Your task to perform on an android device: toggle airplane mode Image 0: 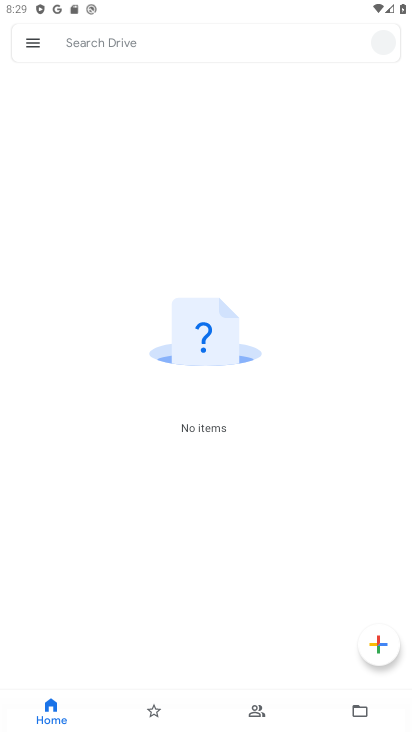
Step 0: drag from (261, 6) to (383, 626)
Your task to perform on an android device: toggle airplane mode Image 1: 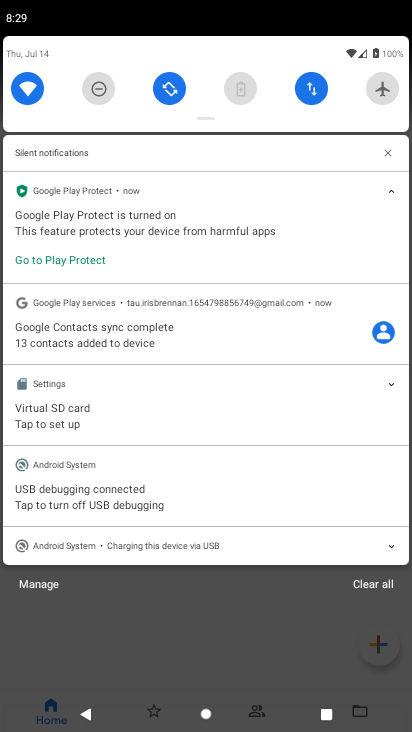
Step 1: click (387, 84)
Your task to perform on an android device: toggle airplane mode Image 2: 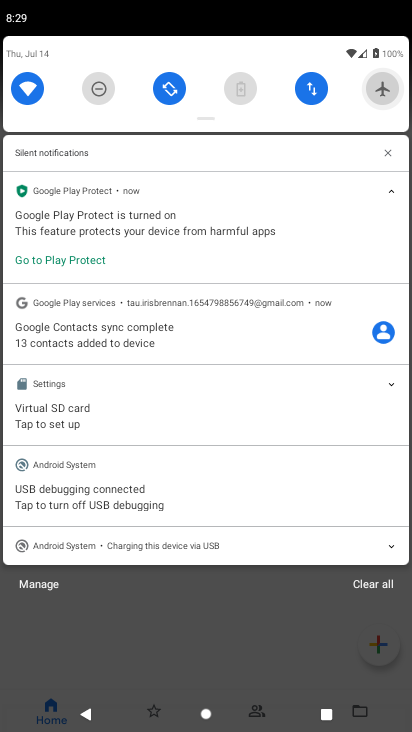
Step 2: click (387, 84)
Your task to perform on an android device: toggle airplane mode Image 3: 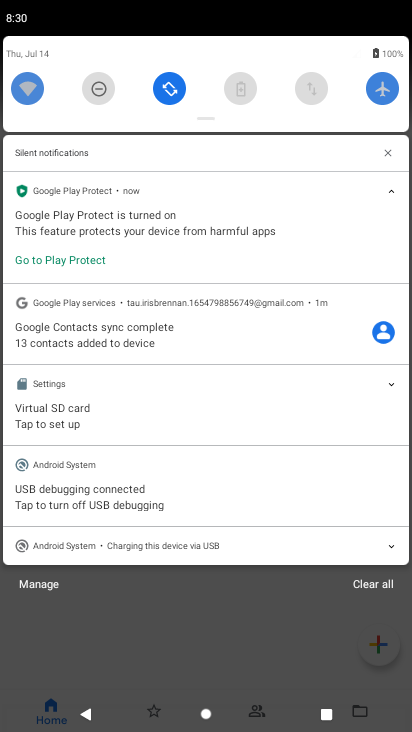
Step 3: click (387, 84)
Your task to perform on an android device: toggle airplane mode Image 4: 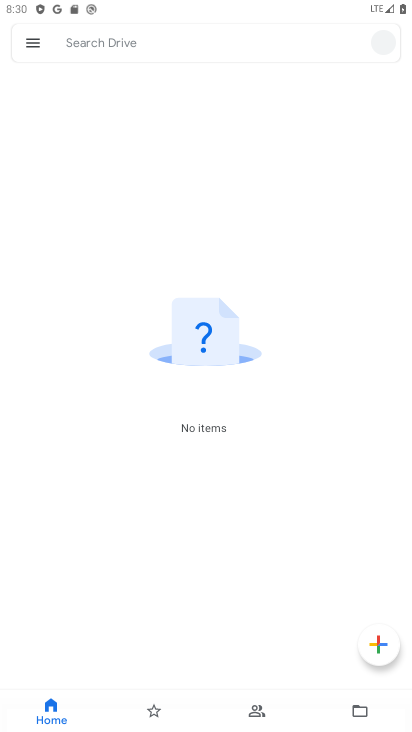
Step 4: task complete